Your task to perform on an android device: turn off translation in the chrome app Image 0: 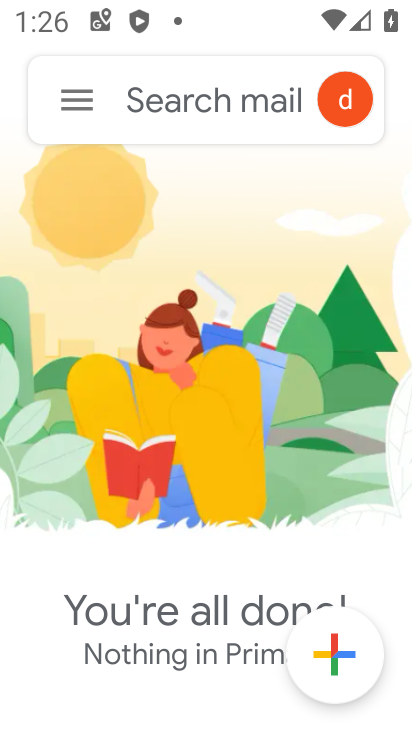
Step 0: press back button
Your task to perform on an android device: turn off translation in the chrome app Image 1: 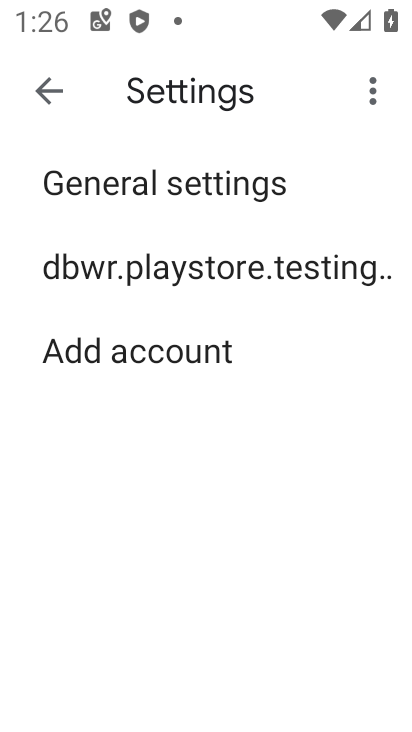
Step 1: press back button
Your task to perform on an android device: turn off translation in the chrome app Image 2: 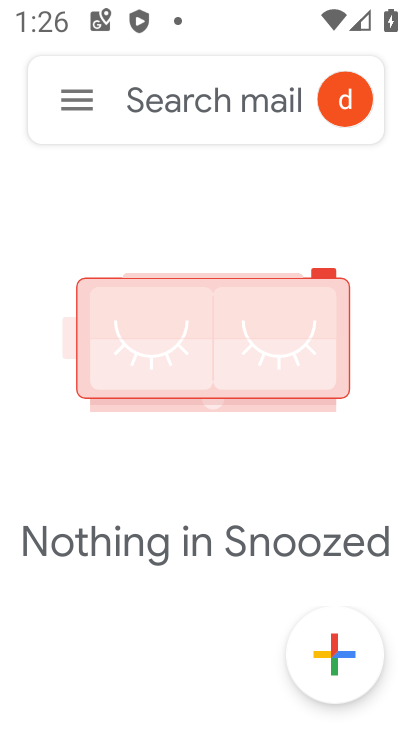
Step 2: press back button
Your task to perform on an android device: turn off translation in the chrome app Image 3: 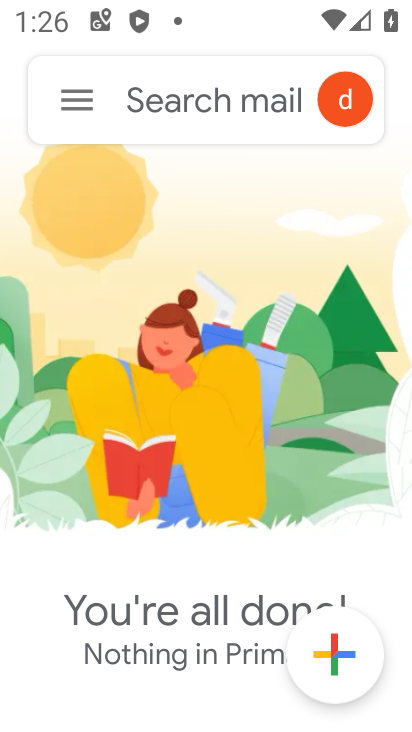
Step 3: press back button
Your task to perform on an android device: turn off translation in the chrome app Image 4: 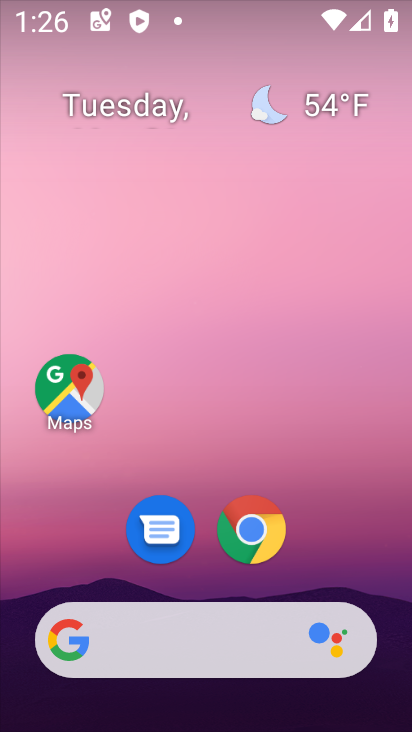
Step 4: click (252, 528)
Your task to perform on an android device: turn off translation in the chrome app Image 5: 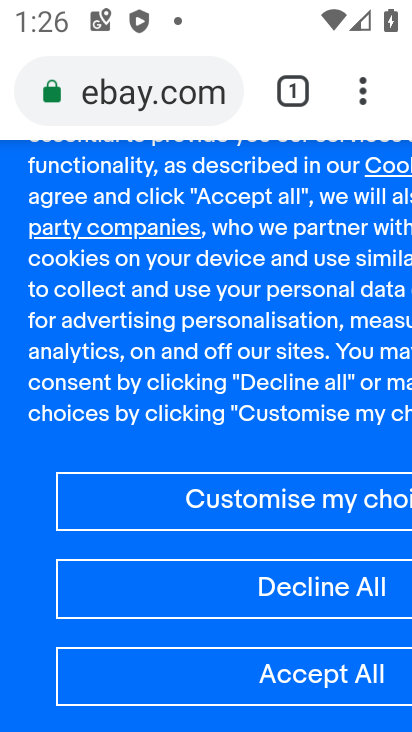
Step 5: click (364, 92)
Your task to perform on an android device: turn off translation in the chrome app Image 6: 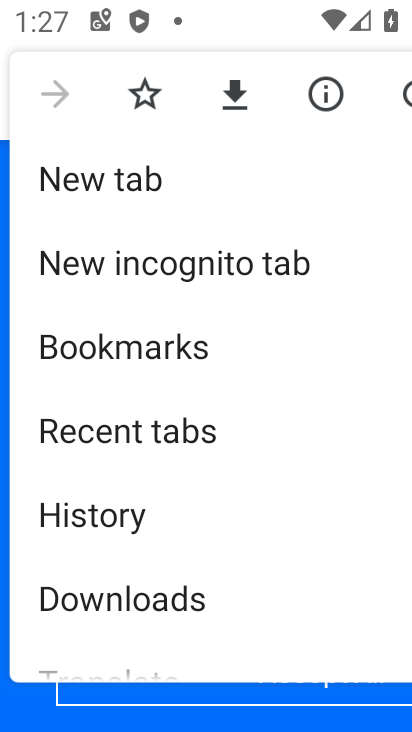
Step 6: drag from (183, 478) to (208, 388)
Your task to perform on an android device: turn off translation in the chrome app Image 7: 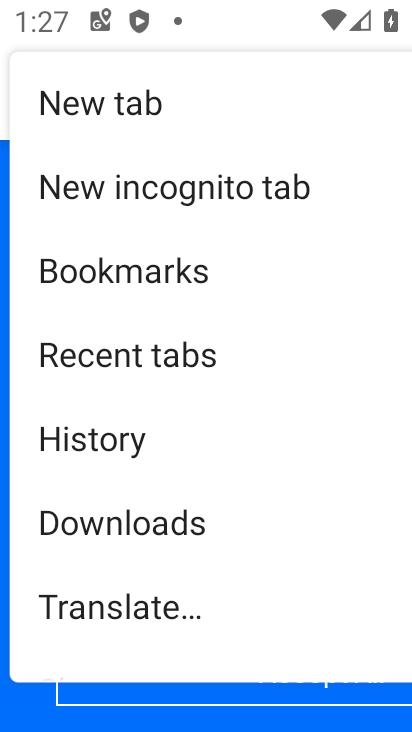
Step 7: drag from (161, 554) to (185, 459)
Your task to perform on an android device: turn off translation in the chrome app Image 8: 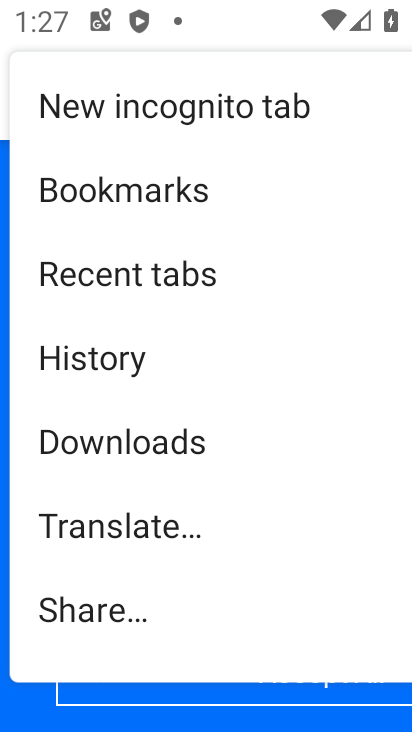
Step 8: drag from (156, 577) to (223, 488)
Your task to perform on an android device: turn off translation in the chrome app Image 9: 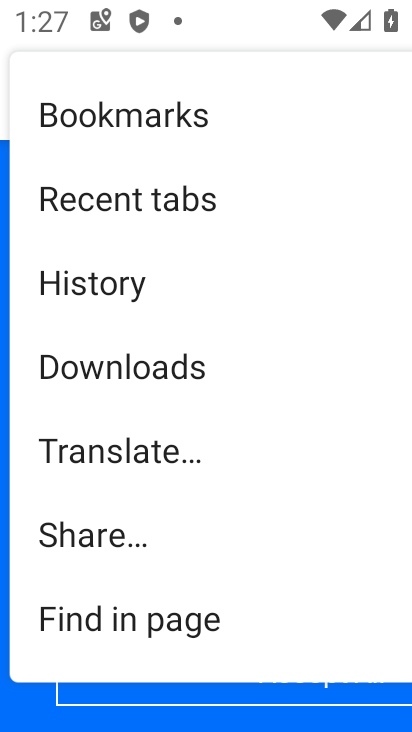
Step 9: drag from (163, 574) to (230, 486)
Your task to perform on an android device: turn off translation in the chrome app Image 10: 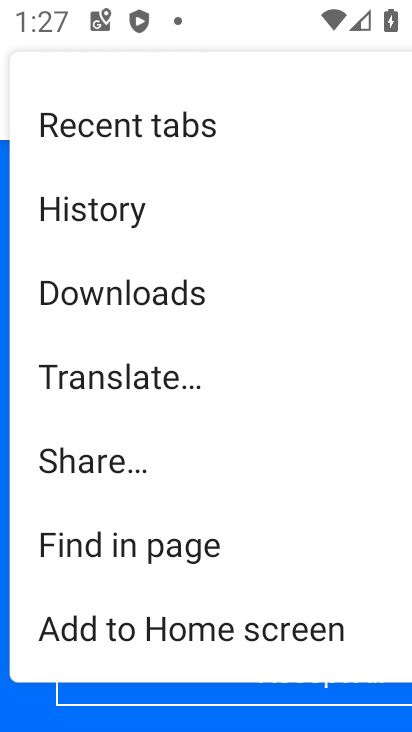
Step 10: drag from (175, 574) to (232, 486)
Your task to perform on an android device: turn off translation in the chrome app Image 11: 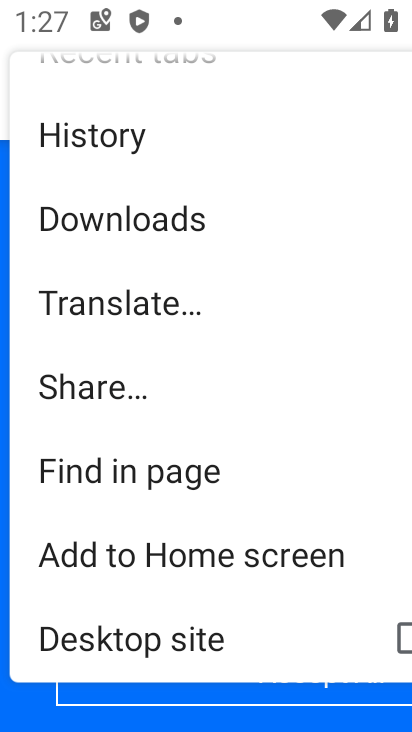
Step 11: drag from (172, 596) to (234, 483)
Your task to perform on an android device: turn off translation in the chrome app Image 12: 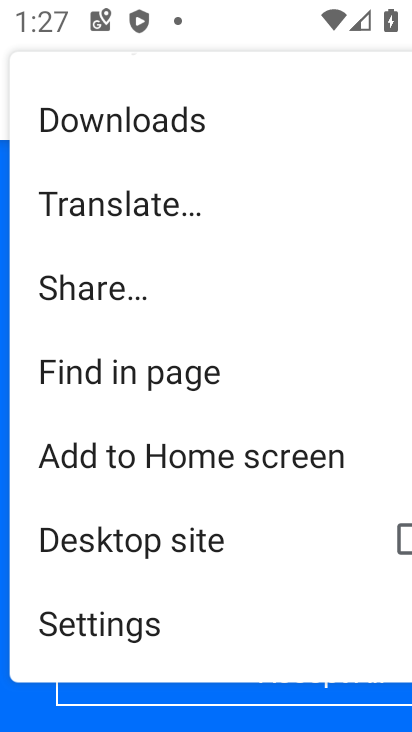
Step 12: drag from (182, 571) to (212, 455)
Your task to perform on an android device: turn off translation in the chrome app Image 13: 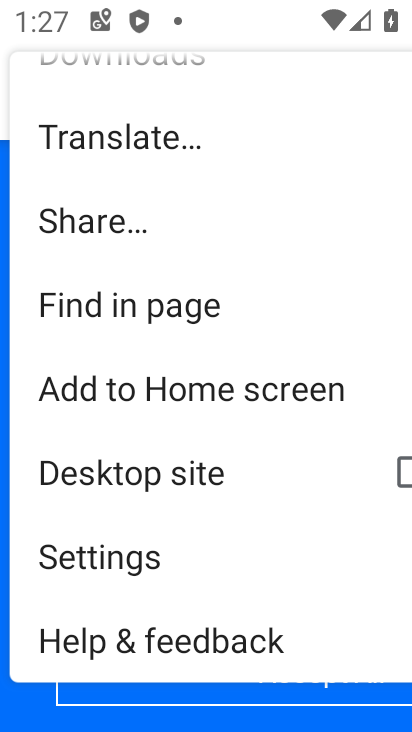
Step 13: click (129, 554)
Your task to perform on an android device: turn off translation in the chrome app Image 14: 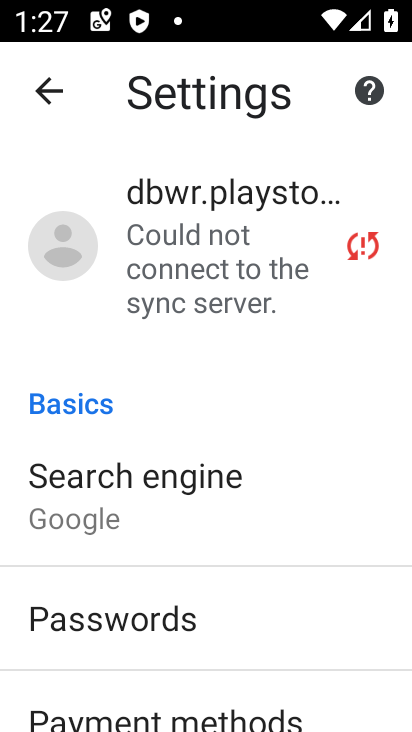
Step 14: drag from (119, 585) to (154, 483)
Your task to perform on an android device: turn off translation in the chrome app Image 15: 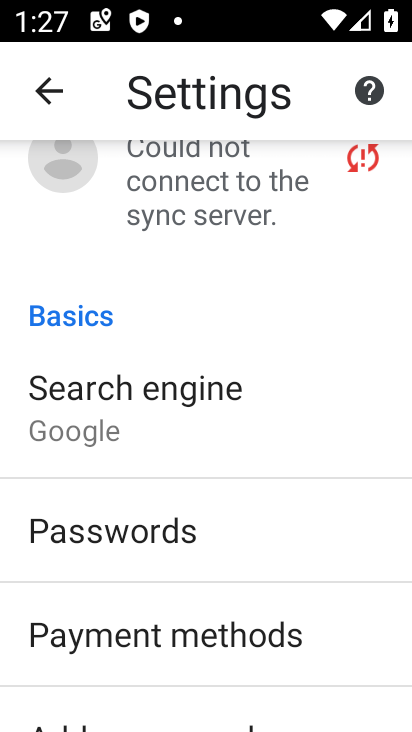
Step 15: drag from (140, 647) to (150, 534)
Your task to perform on an android device: turn off translation in the chrome app Image 16: 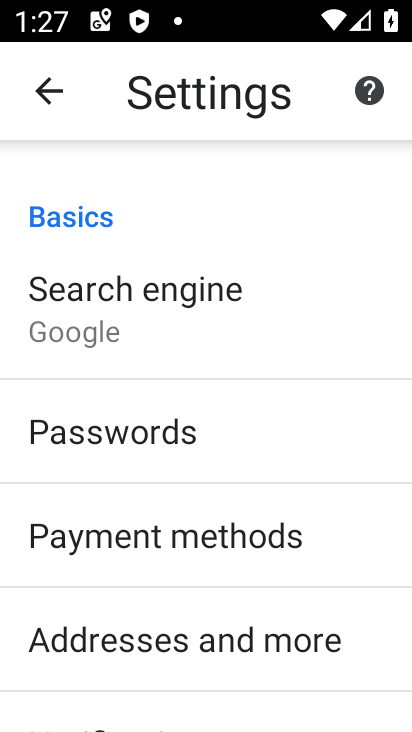
Step 16: drag from (148, 608) to (164, 515)
Your task to perform on an android device: turn off translation in the chrome app Image 17: 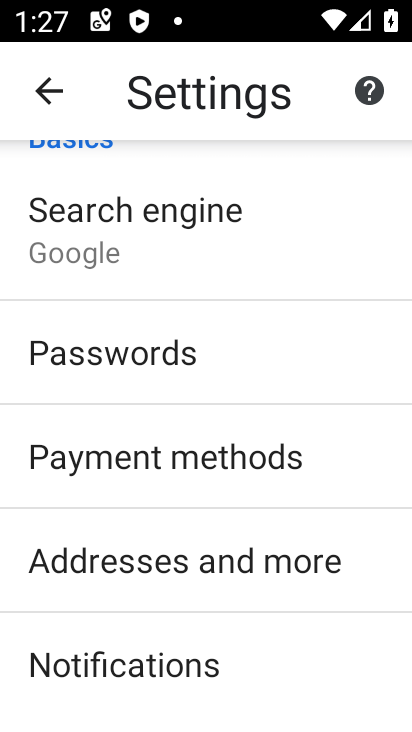
Step 17: drag from (168, 633) to (190, 522)
Your task to perform on an android device: turn off translation in the chrome app Image 18: 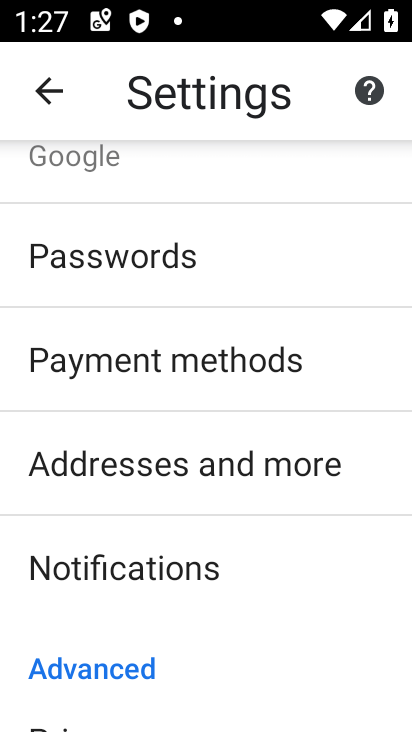
Step 18: drag from (144, 617) to (179, 490)
Your task to perform on an android device: turn off translation in the chrome app Image 19: 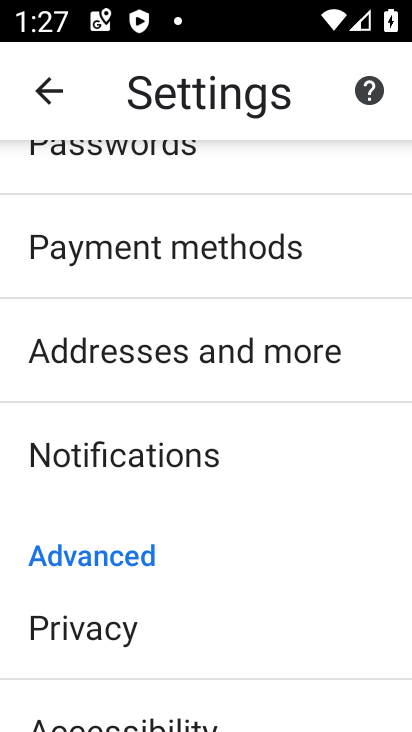
Step 19: drag from (123, 606) to (163, 517)
Your task to perform on an android device: turn off translation in the chrome app Image 20: 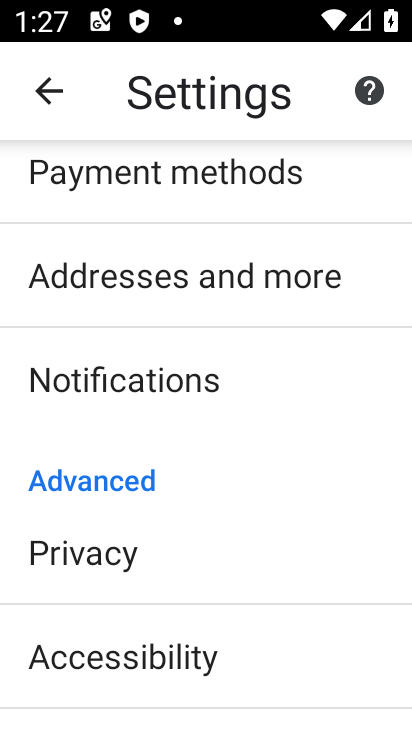
Step 20: drag from (137, 622) to (180, 526)
Your task to perform on an android device: turn off translation in the chrome app Image 21: 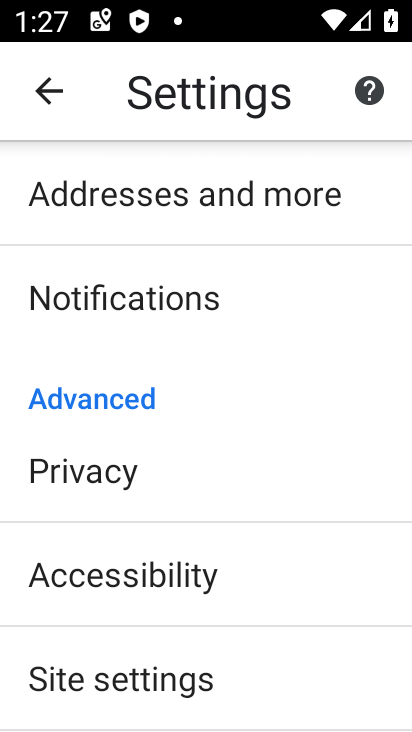
Step 21: drag from (132, 609) to (194, 498)
Your task to perform on an android device: turn off translation in the chrome app Image 22: 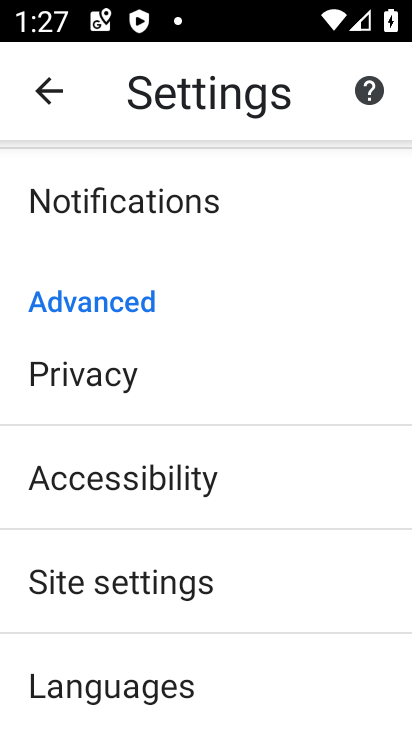
Step 22: drag from (125, 608) to (190, 519)
Your task to perform on an android device: turn off translation in the chrome app Image 23: 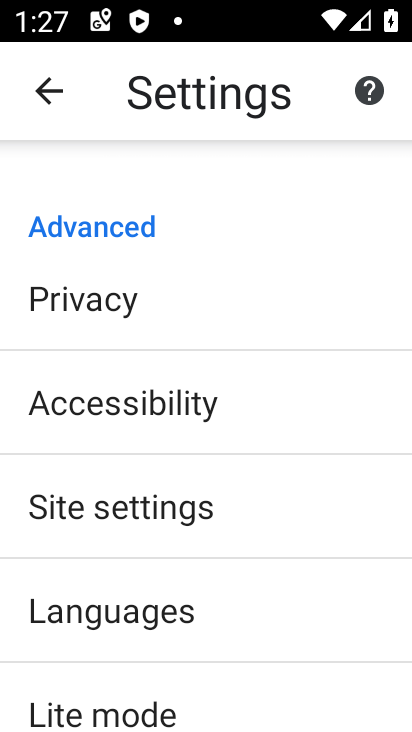
Step 23: click (186, 624)
Your task to perform on an android device: turn off translation in the chrome app Image 24: 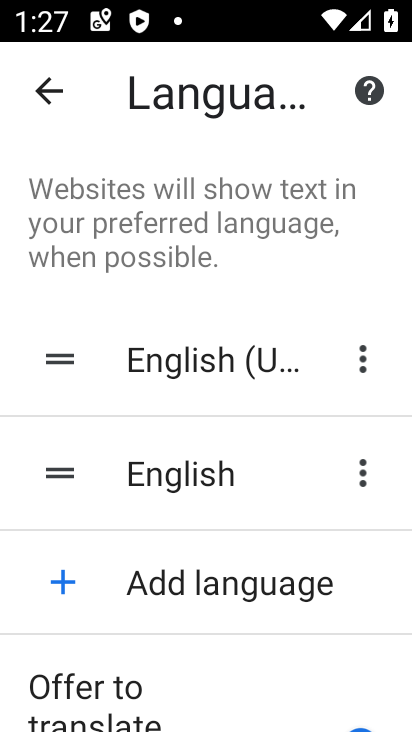
Step 24: drag from (195, 678) to (263, 545)
Your task to perform on an android device: turn off translation in the chrome app Image 25: 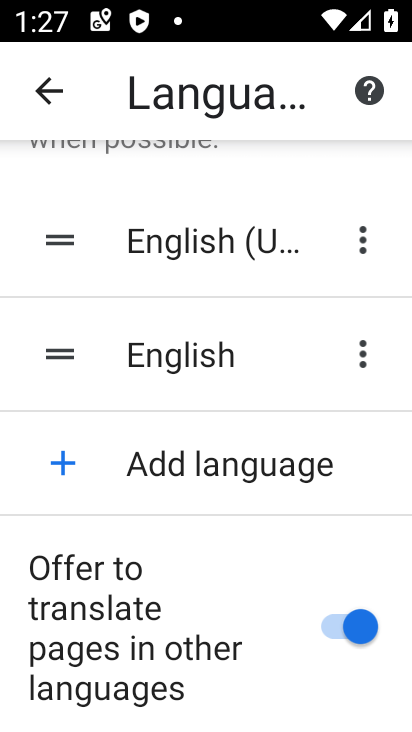
Step 25: click (345, 639)
Your task to perform on an android device: turn off translation in the chrome app Image 26: 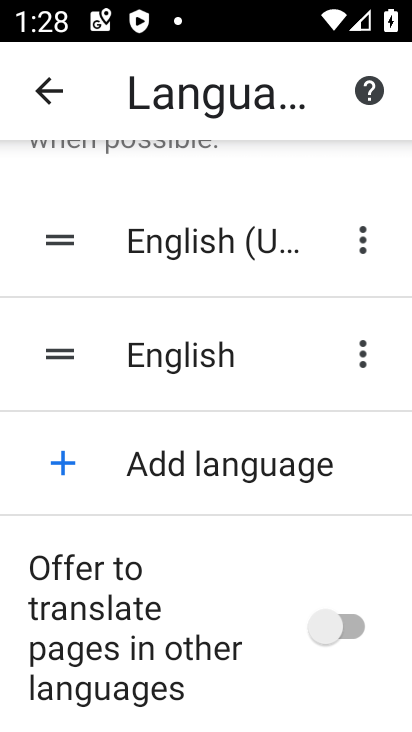
Step 26: task complete